Your task to perform on an android device: Empty the shopping cart on bestbuy.com. Add "bose soundsport free" to the cart on bestbuy.com, then select checkout. Image 0: 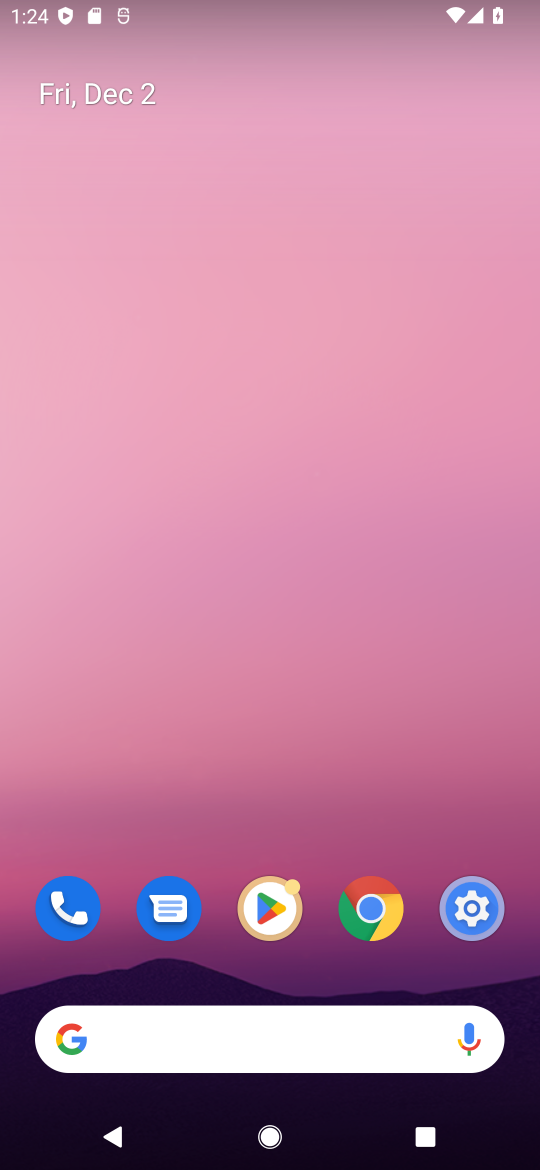
Step 0: drag from (308, 693) to (244, 321)
Your task to perform on an android device: Empty the shopping cart on bestbuy.com. Add "bose soundsport free" to the cart on bestbuy.com, then select checkout. Image 1: 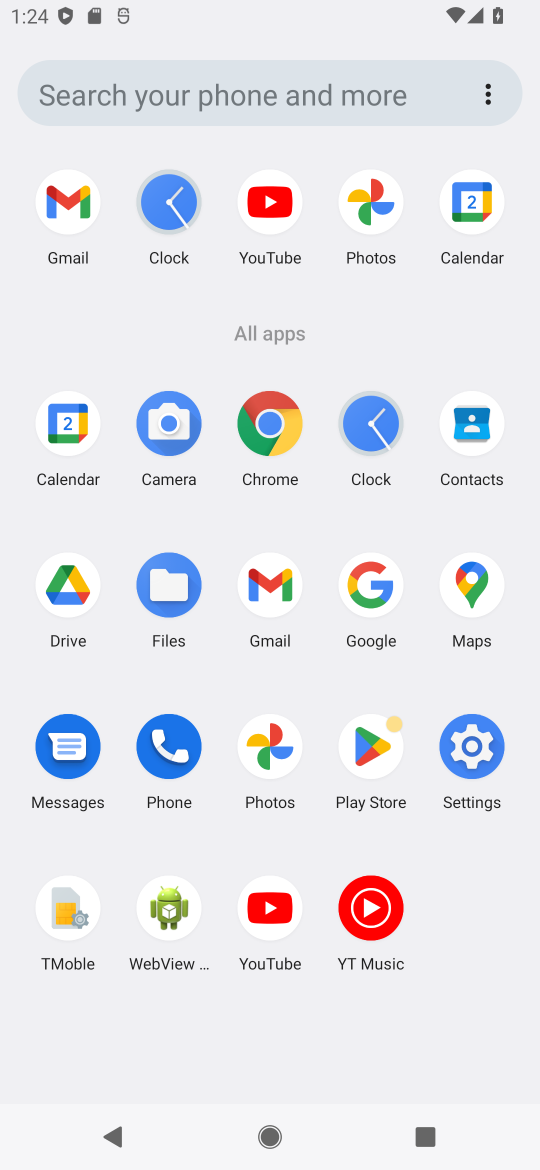
Step 1: click (366, 587)
Your task to perform on an android device: Empty the shopping cart on bestbuy.com. Add "bose soundsport free" to the cart on bestbuy.com, then select checkout. Image 2: 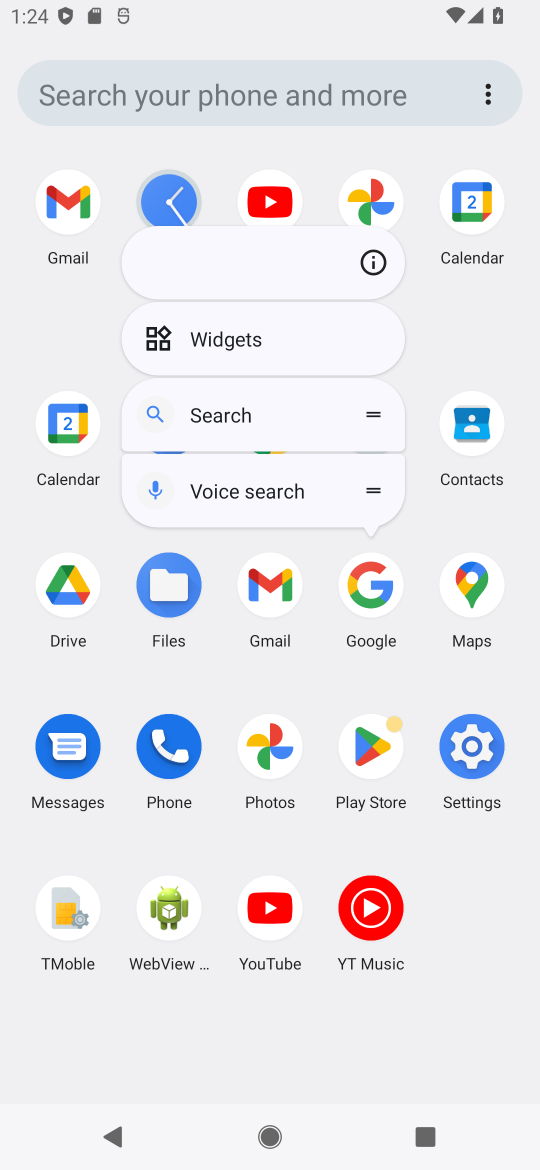
Step 2: click (376, 585)
Your task to perform on an android device: Empty the shopping cart on bestbuy.com. Add "bose soundsport free" to the cart on bestbuy.com, then select checkout. Image 3: 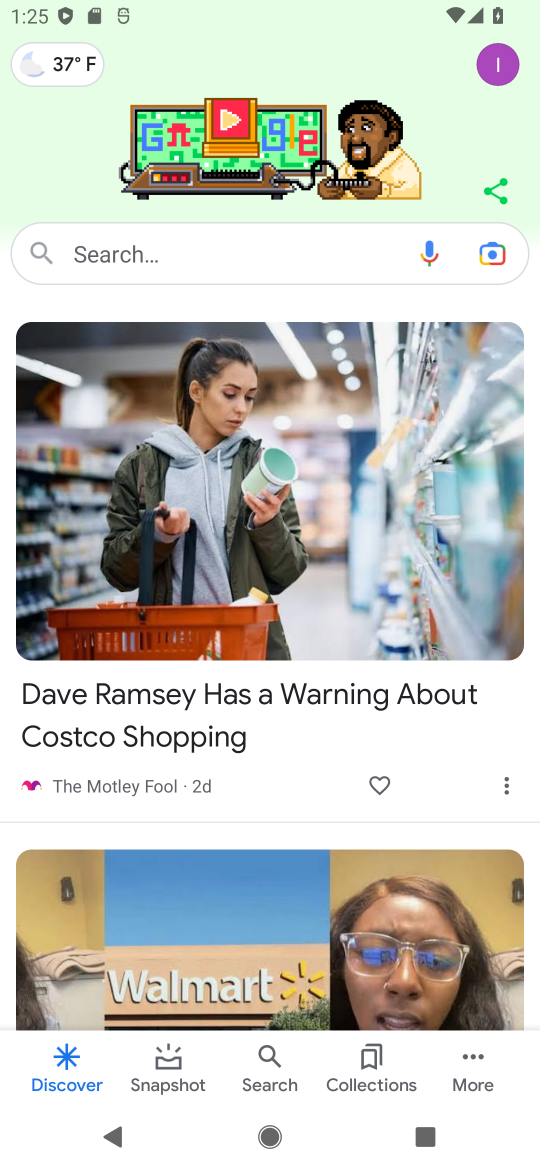
Step 3: click (111, 251)
Your task to perform on an android device: Empty the shopping cart on bestbuy.com. Add "bose soundsport free" to the cart on bestbuy.com, then select checkout. Image 4: 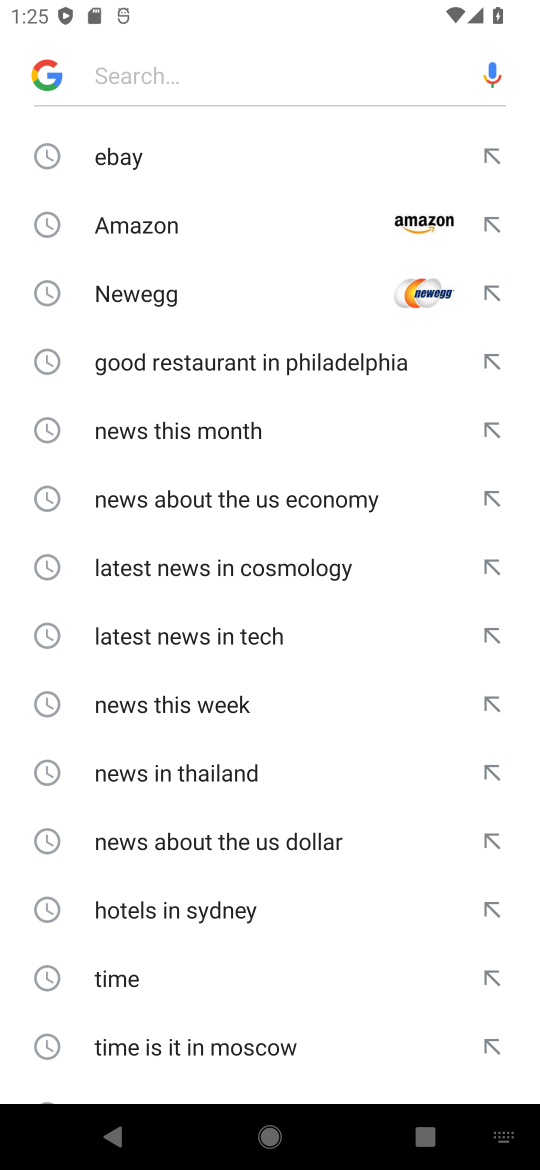
Step 4: type "bestbuy.com"
Your task to perform on an android device: Empty the shopping cart on bestbuy.com. Add "bose soundsport free" to the cart on bestbuy.com, then select checkout. Image 5: 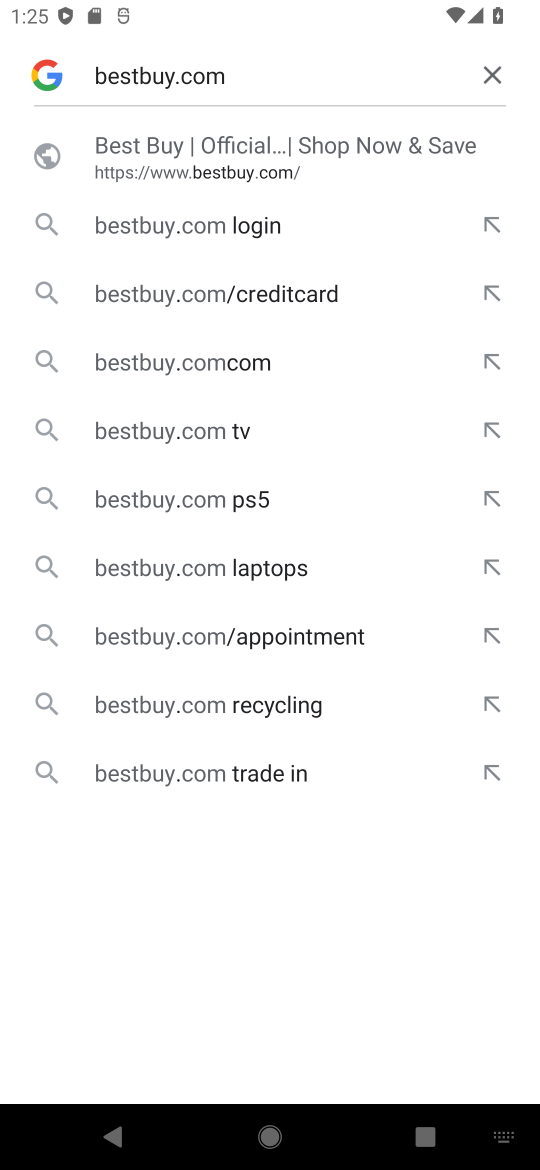
Step 5: click (260, 147)
Your task to perform on an android device: Empty the shopping cart on bestbuy.com. Add "bose soundsport free" to the cart on bestbuy.com, then select checkout. Image 6: 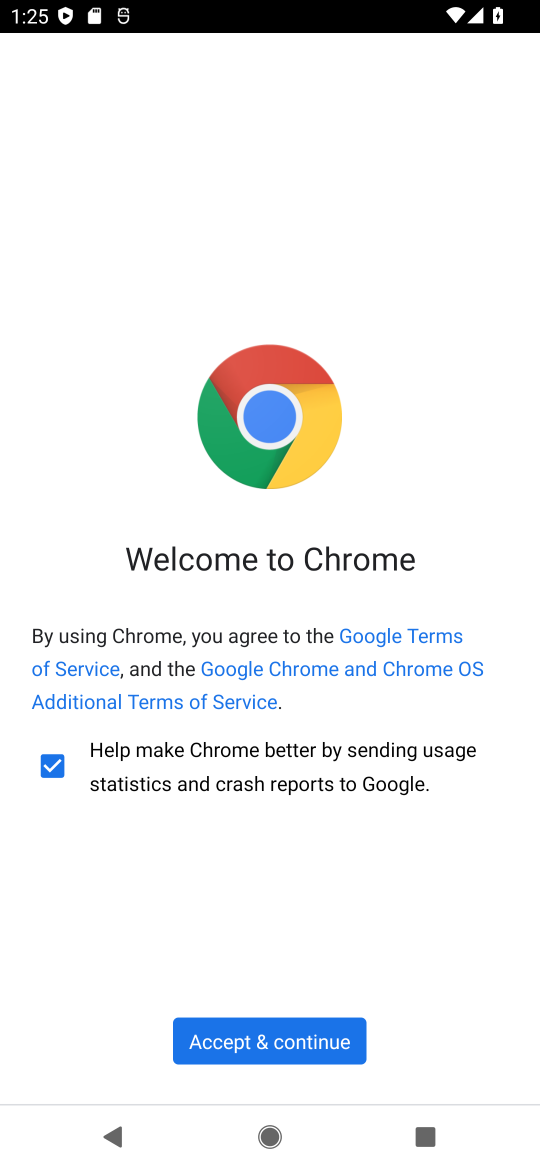
Step 6: click (213, 1050)
Your task to perform on an android device: Empty the shopping cart on bestbuy.com. Add "bose soundsport free" to the cart on bestbuy.com, then select checkout. Image 7: 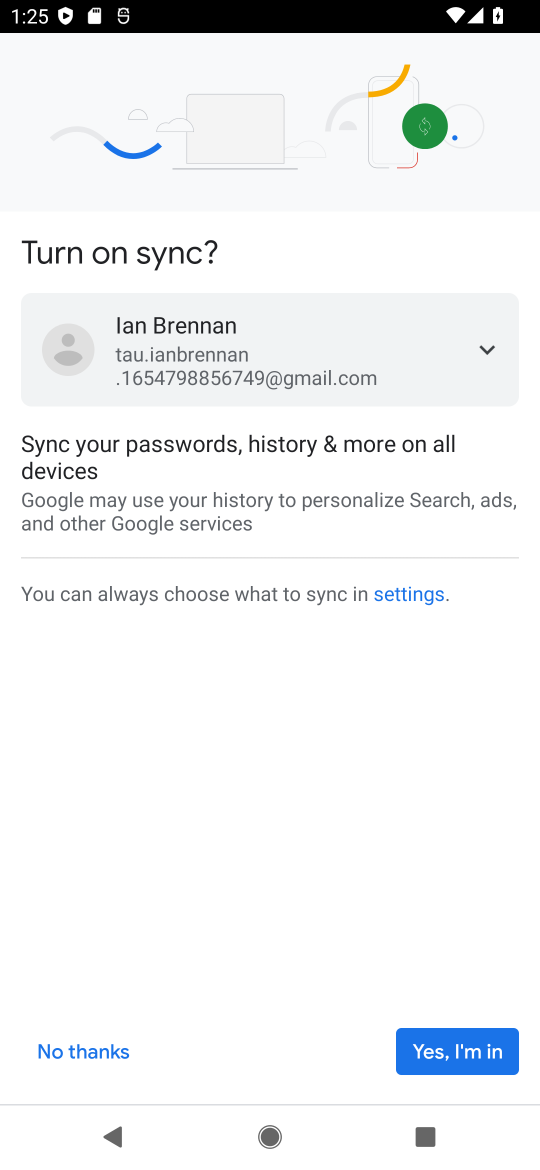
Step 7: click (475, 1056)
Your task to perform on an android device: Empty the shopping cart on bestbuy.com. Add "bose soundsport free" to the cart on bestbuy.com, then select checkout. Image 8: 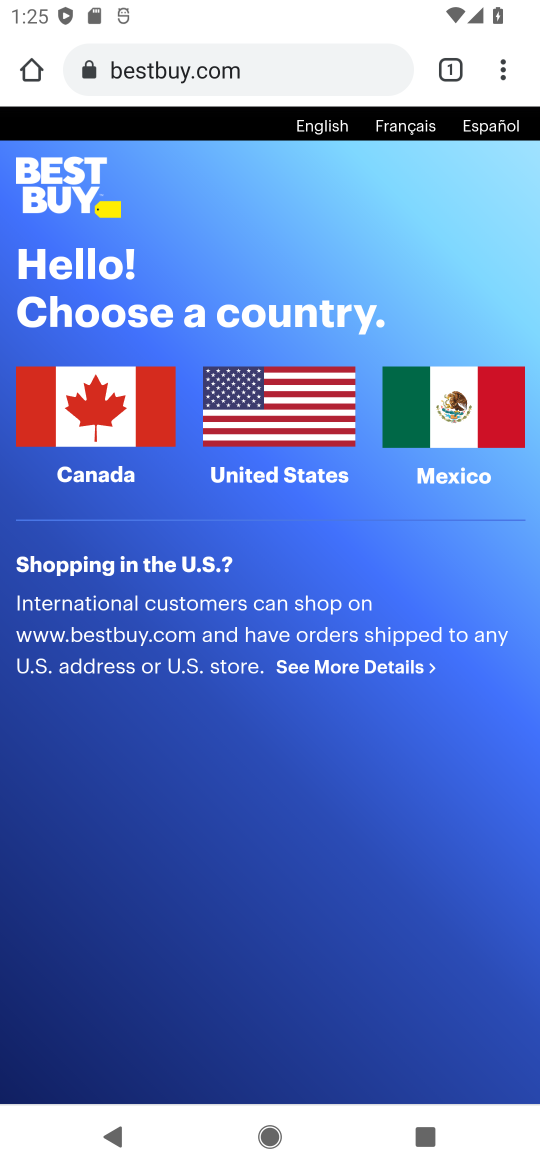
Step 8: click (326, 405)
Your task to perform on an android device: Empty the shopping cart on bestbuy.com. Add "bose soundsport free" to the cart on bestbuy.com, then select checkout. Image 9: 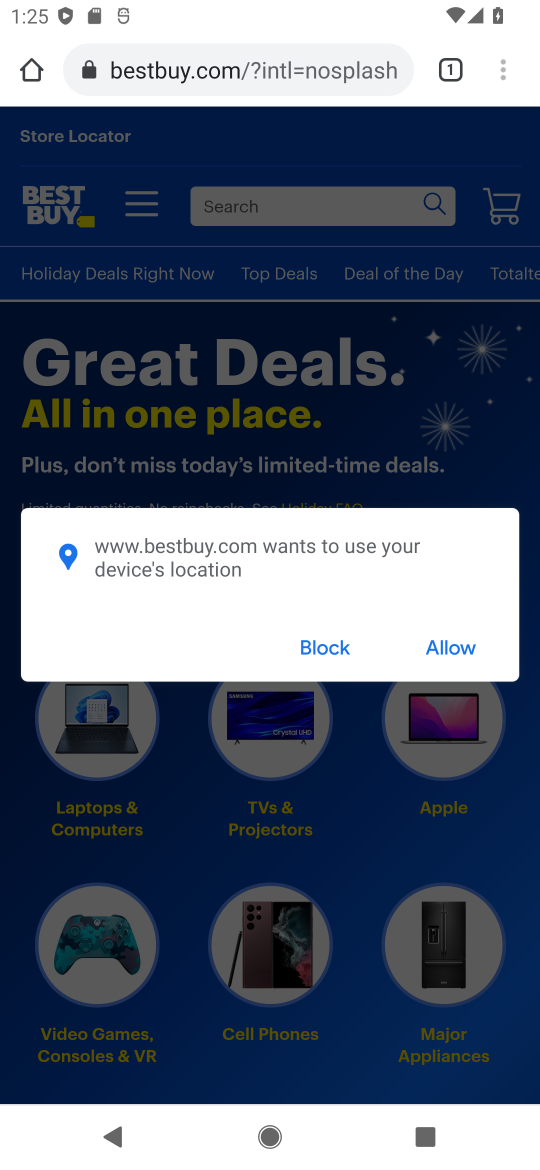
Step 9: click (238, 198)
Your task to perform on an android device: Empty the shopping cart on bestbuy.com. Add "bose soundsport free" to the cart on bestbuy.com, then select checkout. Image 10: 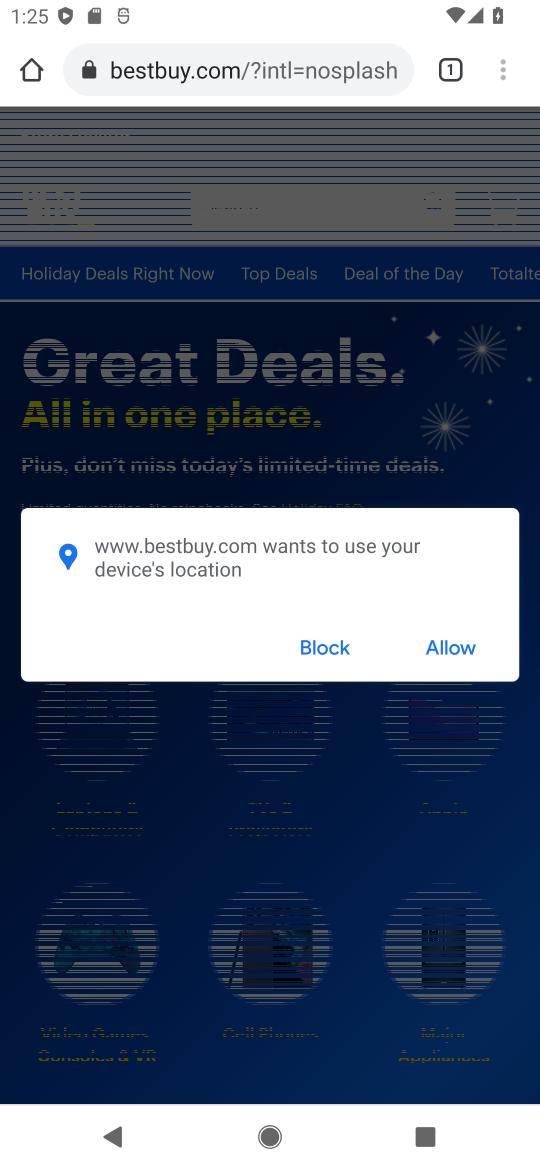
Step 10: click (466, 644)
Your task to perform on an android device: Empty the shopping cart on bestbuy.com. Add "bose soundsport free" to the cart on bestbuy.com, then select checkout. Image 11: 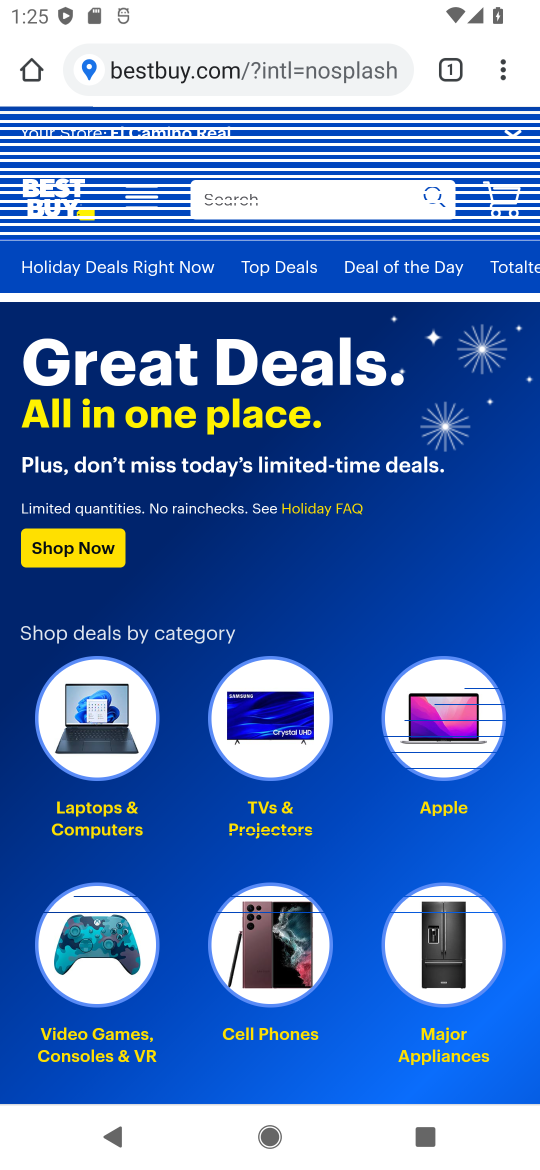
Step 11: click (294, 206)
Your task to perform on an android device: Empty the shopping cart on bestbuy.com. Add "bose soundsport free" to the cart on bestbuy.com, then select checkout. Image 12: 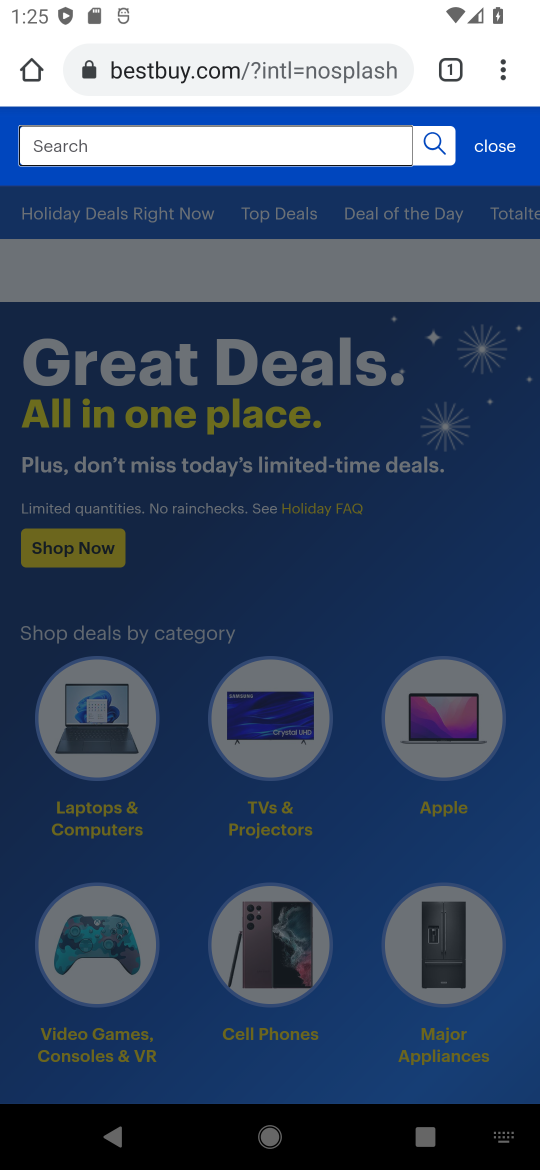
Step 12: type "bose soundsport free"
Your task to perform on an android device: Empty the shopping cart on bestbuy.com. Add "bose soundsport free" to the cart on bestbuy.com, then select checkout. Image 13: 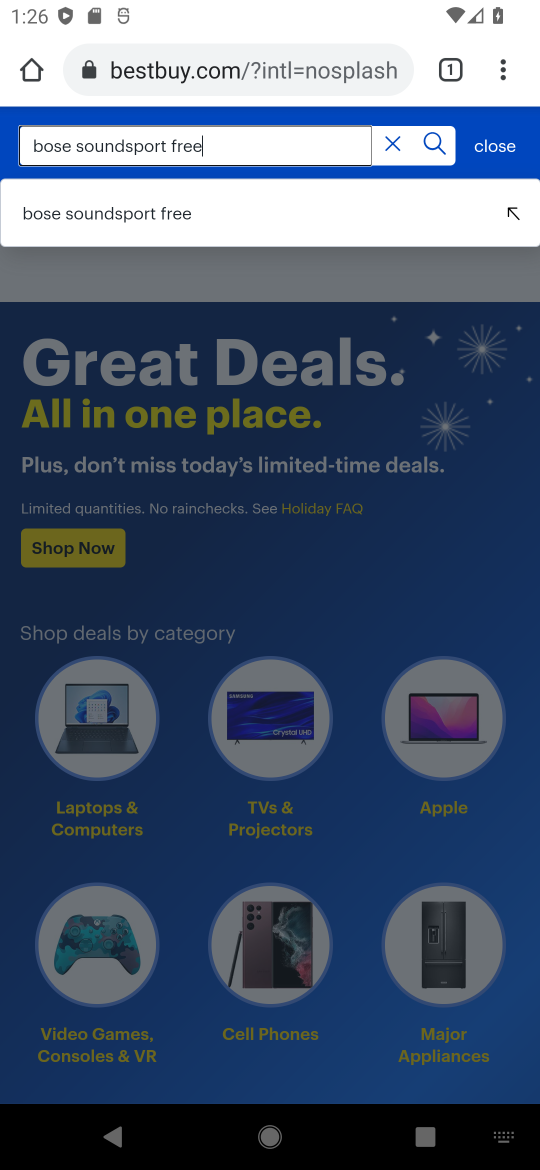
Step 13: click (115, 213)
Your task to perform on an android device: Empty the shopping cart on bestbuy.com. Add "bose soundsport free" to the cart on bestbuy.com, then select checkout. Image 14: 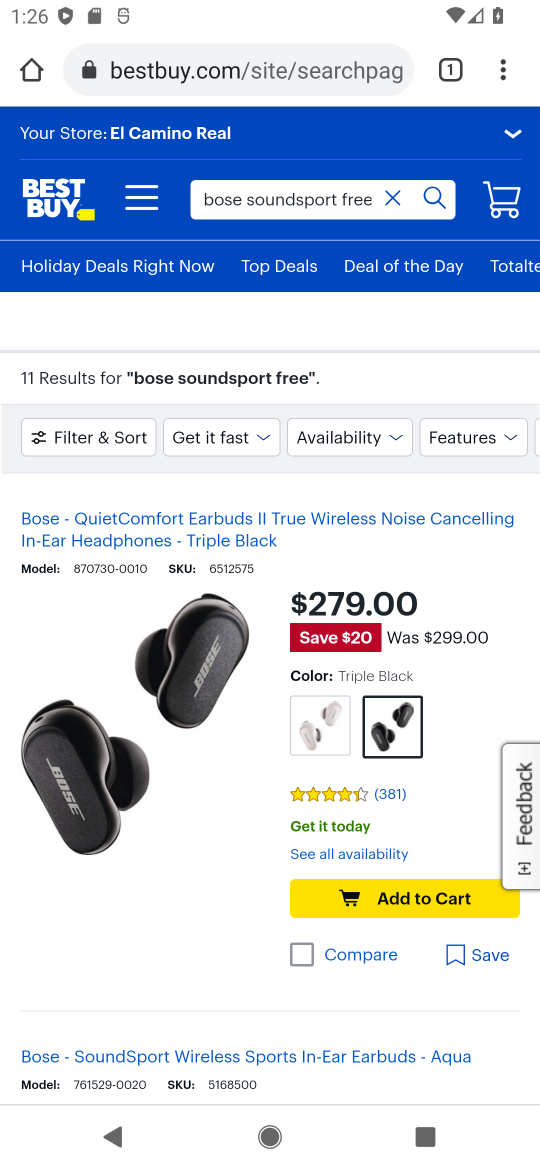
Step 14: drag from (236, 888) to (197, 338)
Your task to perform on an android device: Empty the shopping cart on bestbuy.com. Add "bose soundsport free" to the cart on bestbuy.com, then select checkout. Image 15: 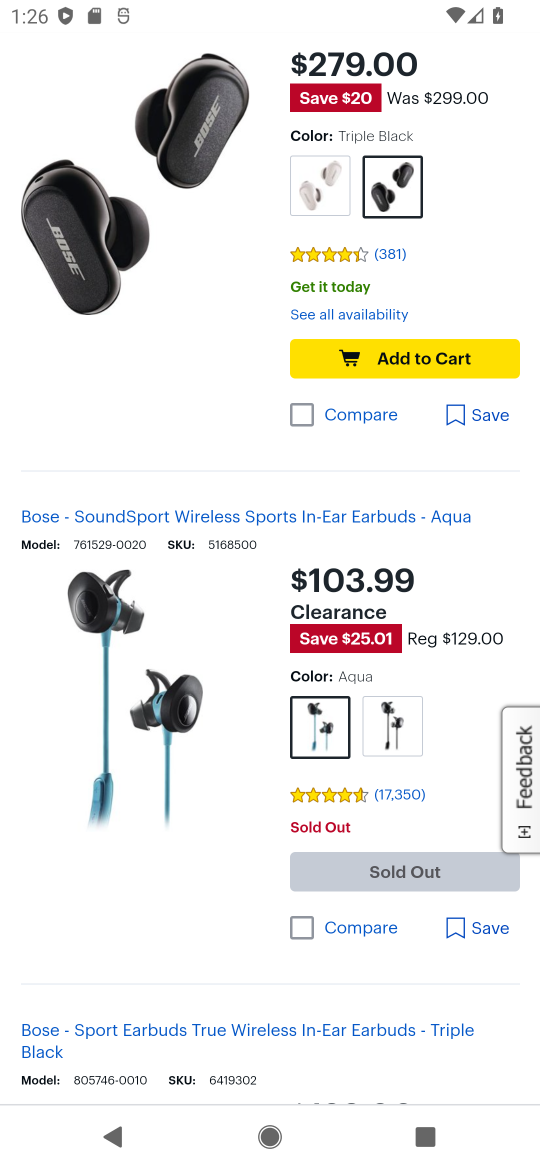
Step 15: click (414, 368)
Your task to perform on an android device: Empty the shopping cart on bestbuy.com. Add "bose soundsport free" to the cart on bestbuy.com, then select checkout. Image 16: 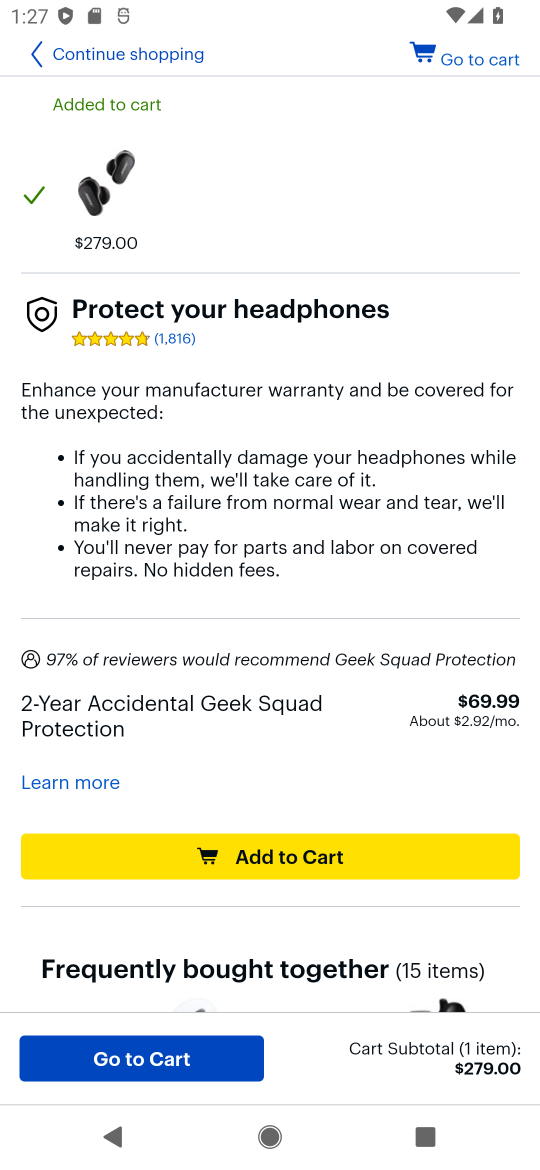
Step 16: drag from (276, 989) to (309, 430)
Your task to perform on an android device: Empty the shopping cart on bestbuy.com. Add "bose soundsport free" to the cart on bestbuy.com, then select checkout. Image 17: 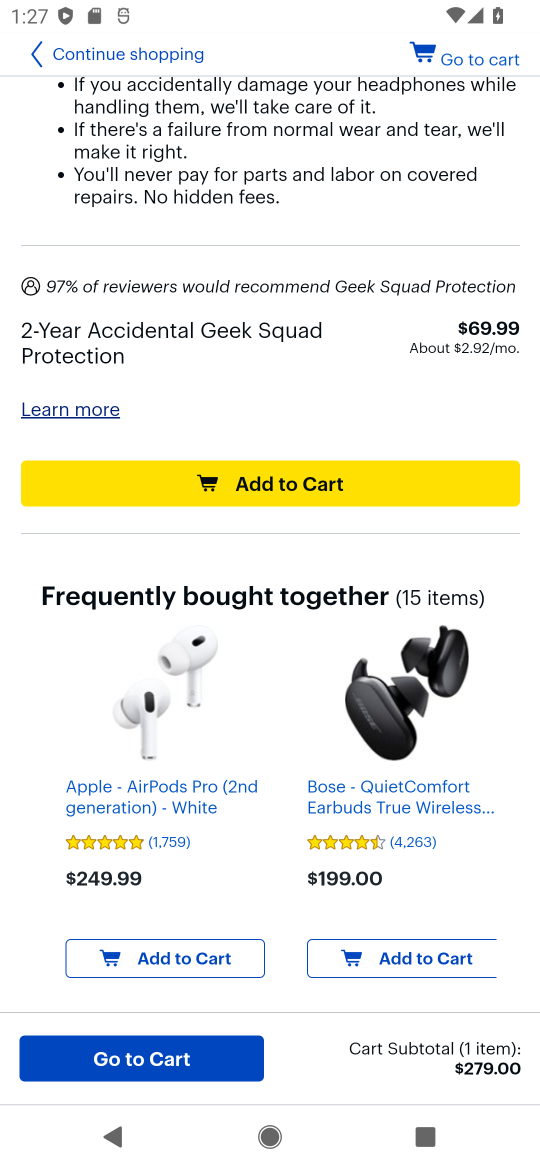
Step 17: drag from (247, 190) to (302, 671)
Your task to perform on an android device: Empty the shopping cart on bestbuy.com. Add "bose soundsport free" to the cart on bestbuy.com, then select checkout. Image 18: 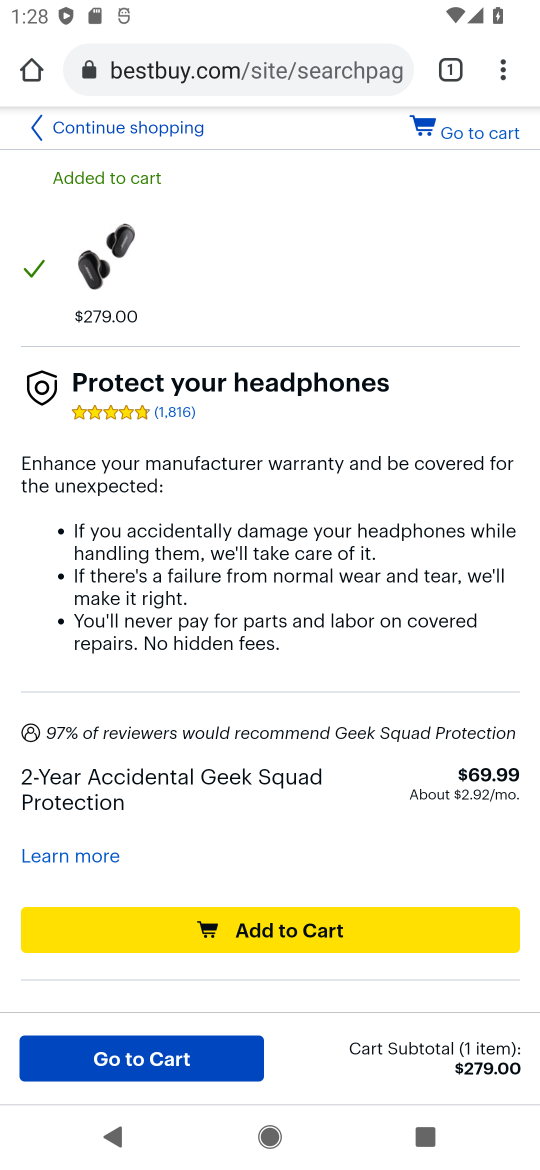
Step 18: click (345, 935)
Your task to perform on an android device: Empty the shopping cart on bestbuy.com. Add "bose soundsport free" to the cart on bestbuy.com, then select checkout. Image 19: 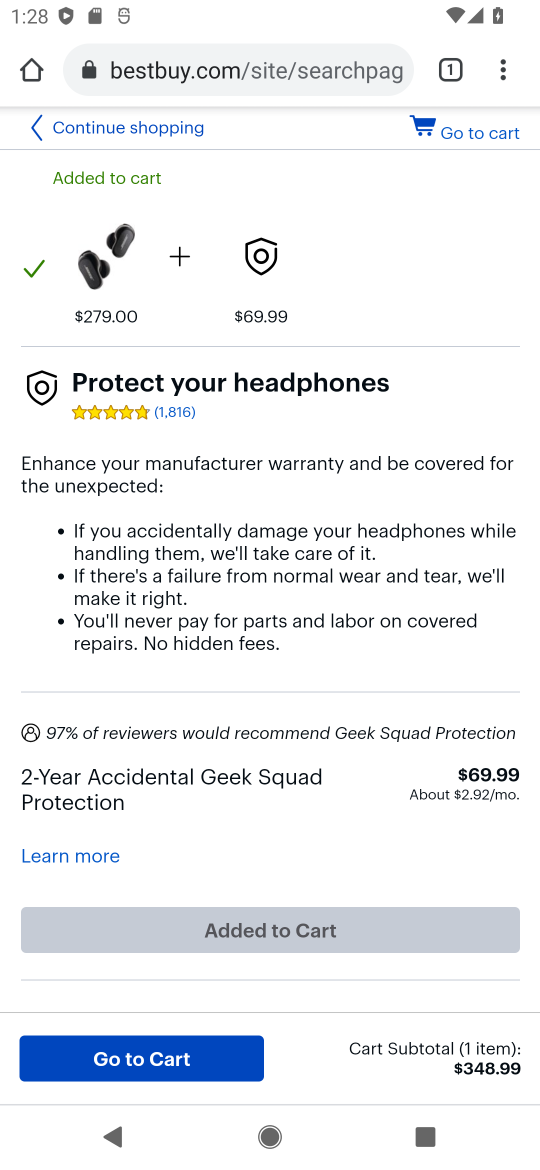
Step 19: task complete